Your task to perform on an android device: toggle translation in the chrome app Image 0: 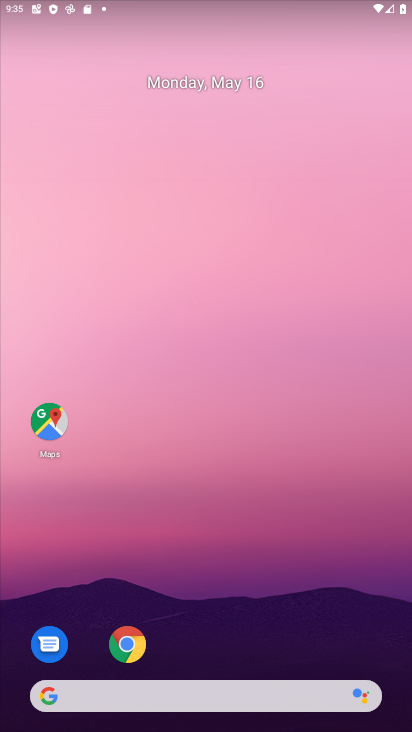
Step 0: click (143, 648)
Your task to perform on an android device: toggle translation in the chrome app Image 1: 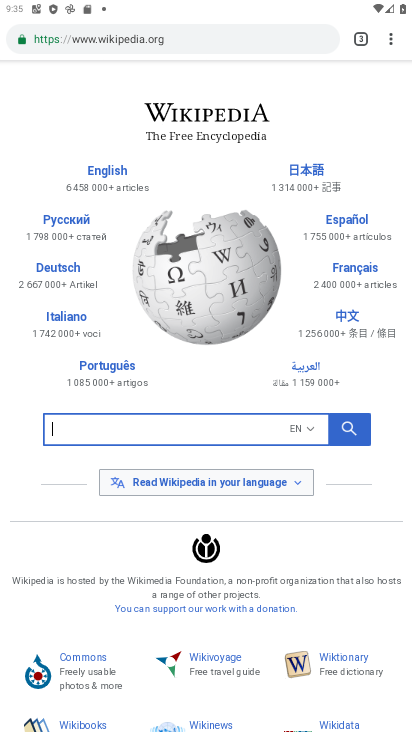
Step 1: click (393, 45)
Your task to perform on an android device: toggle translation in the chrome app Image 2: 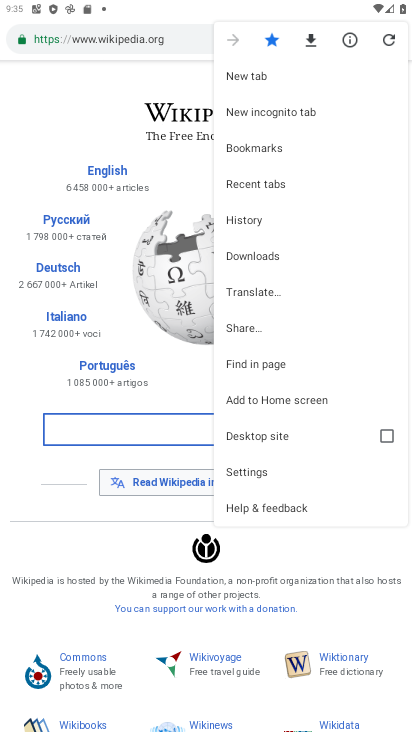
Step 2: click (264, 474)
Your task to perform on an android device: toggle translation in the chrome app Image 3: 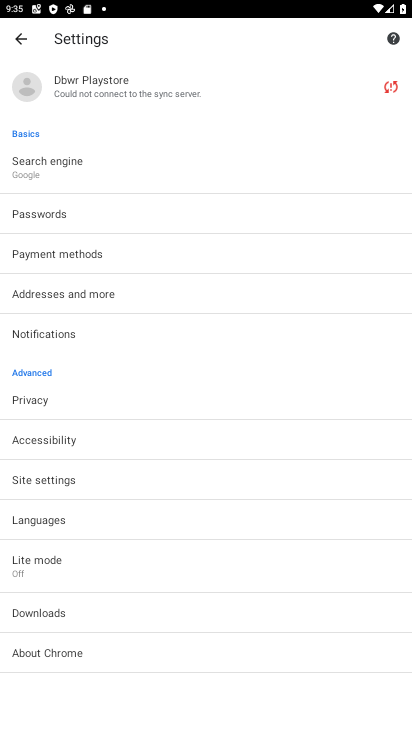
Step 3: click (77, 528)
Your task to perform on an android device: toggle translation in the chrome app Image 4: 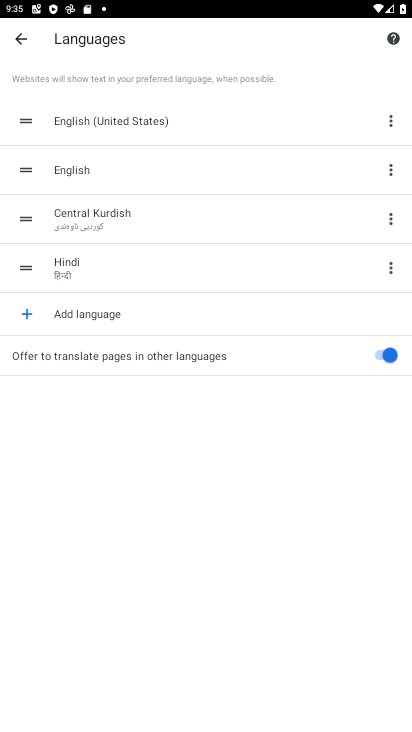
Step 4: click (393, 354)
Your task to perform on an android device: toggle translation in the chrome app Image 5: 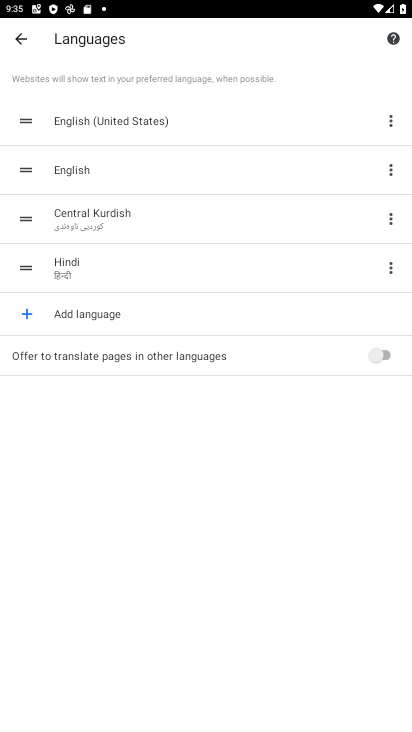
Step 5: task complete